Your task to perform on an android device: check battery use Image 0: 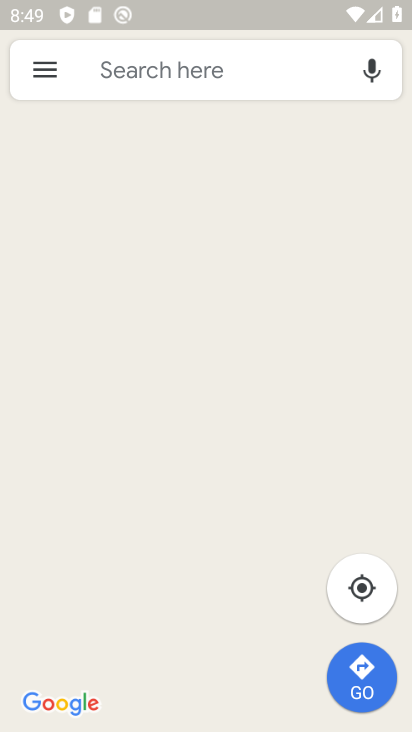
Step 0: drag from (314, 562) to (279, 220)
Your task to perform on an android device: check battery use Image 1: 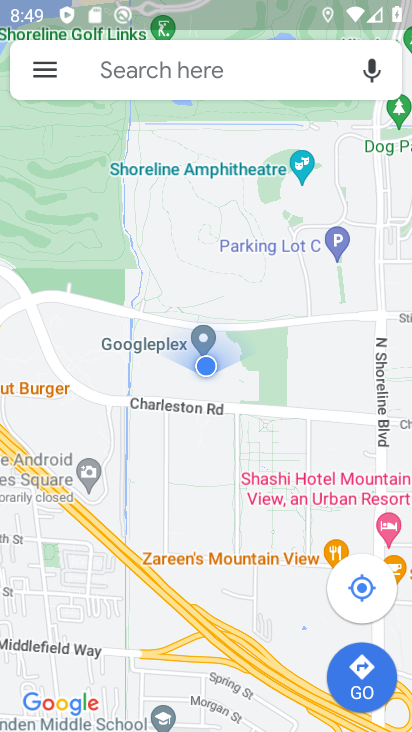
Step 1: click (40, 71)
Your task to perform on an android device: check battery use Image 2: 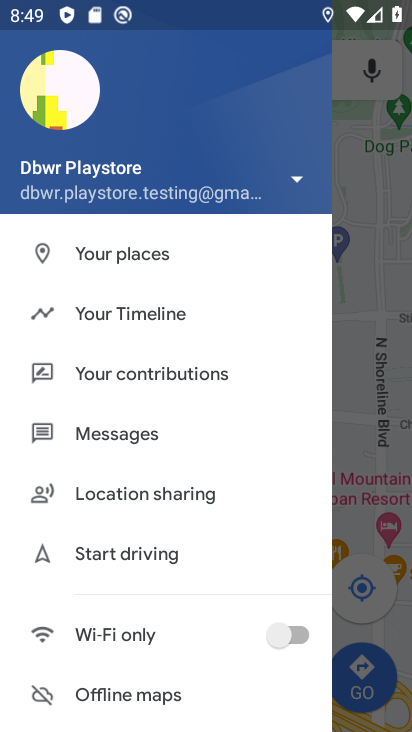
Step 2: press back button
Your task to perform on an android device: check battery use Image 3: 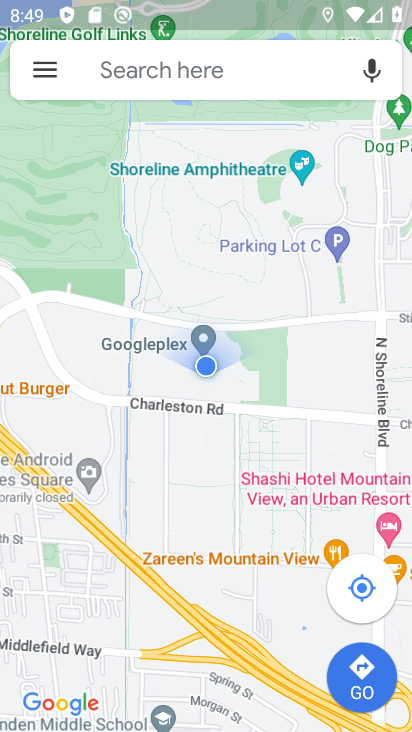
Step 3: press back button
Your task to perform on an android device: check battery use Image 4: 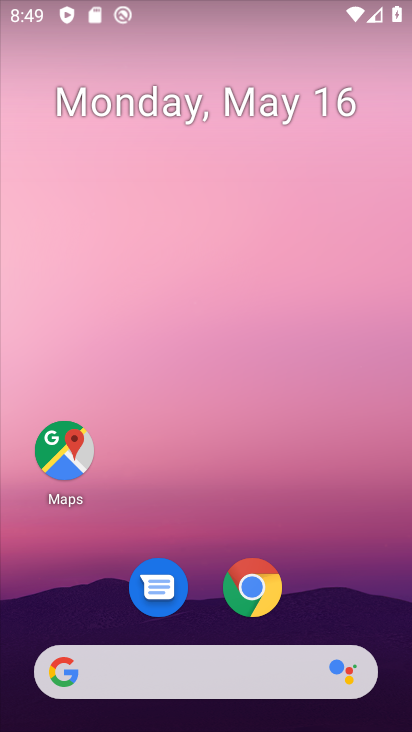
Step 4: drag from (343, 601) to (272, 248)
Your task to perform on an android device: check battery use Image 5: 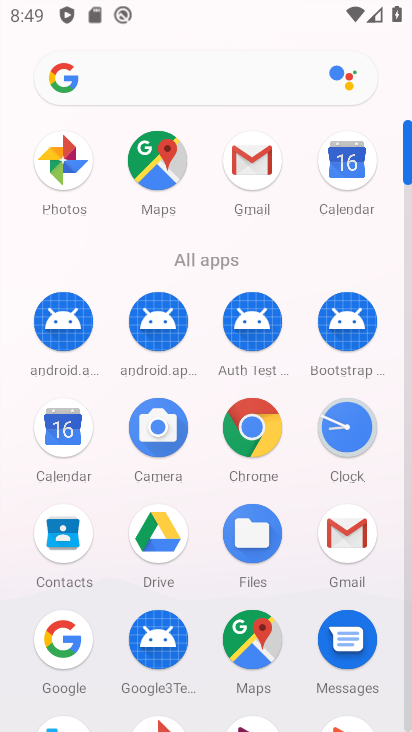
Step 5: click (403, 674)
Your task to perform on an android device: check battery use Image 6: 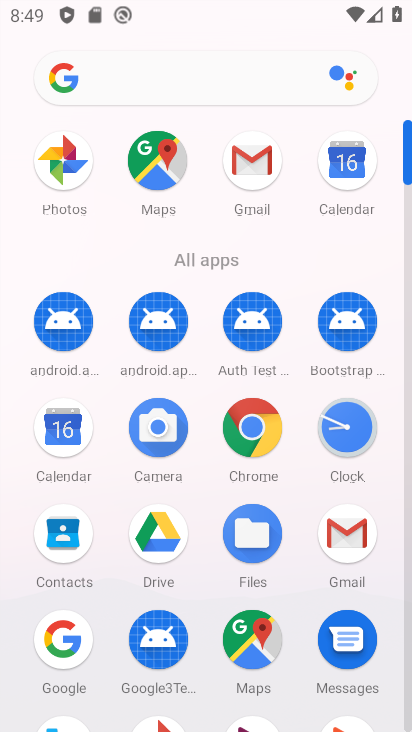
Step 6: click (406, 677)
Your task to perform on an android device: check battery use Image 7: 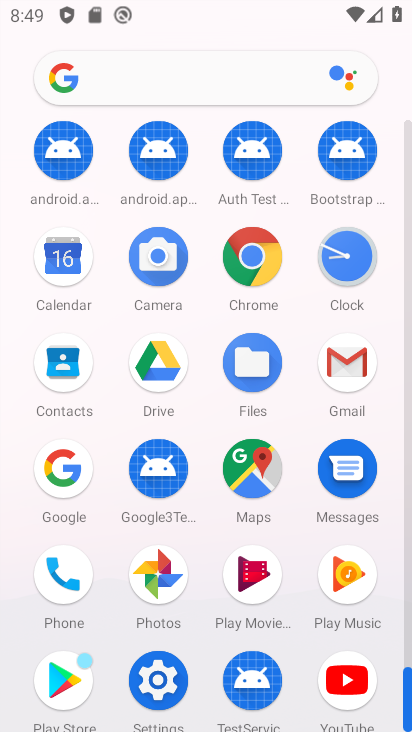
Step 7: click (166, 684)
Your task to perform on an android device: check battery use Image 8: 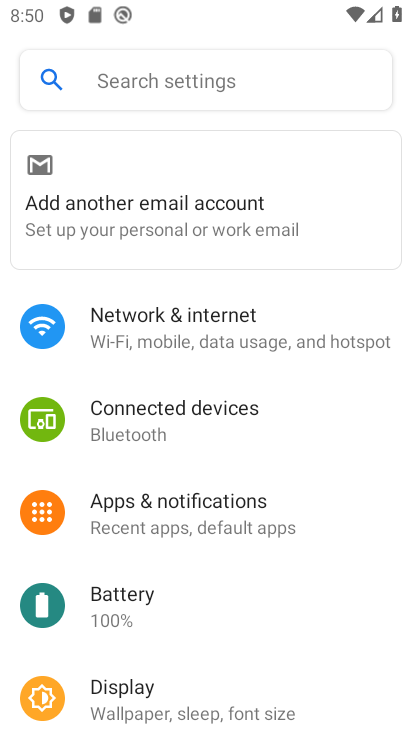
Step 8: click (191, 684)
Your task to perform on an android device: check battery use Image 9: 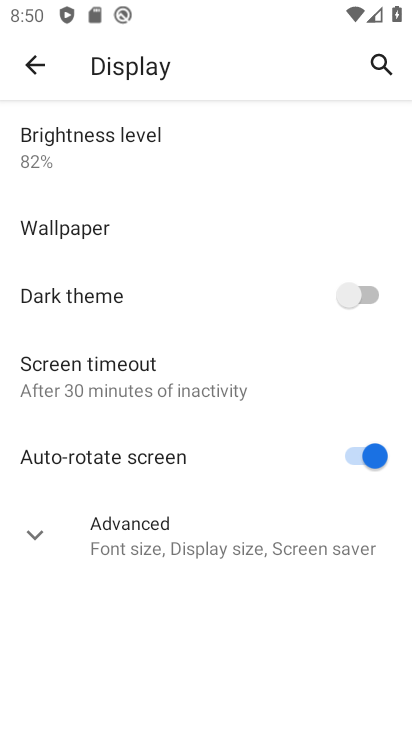
Step 9: click (33, 75)
Your task to perform on an android device: check battery use Image 10: 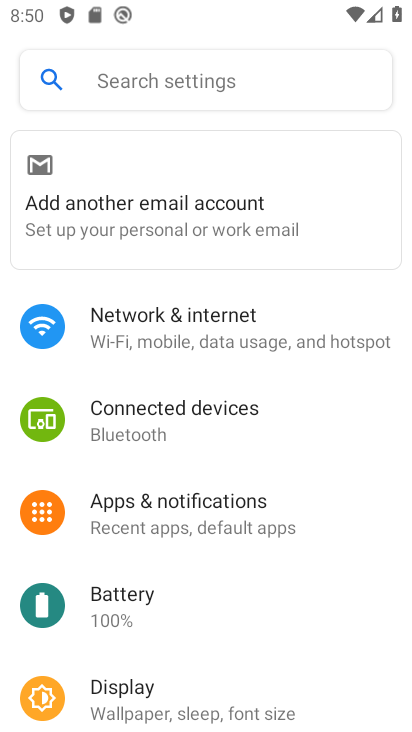
Step 10: click (131, 604)
Your task to perform on an android device: check battery use Image 11: 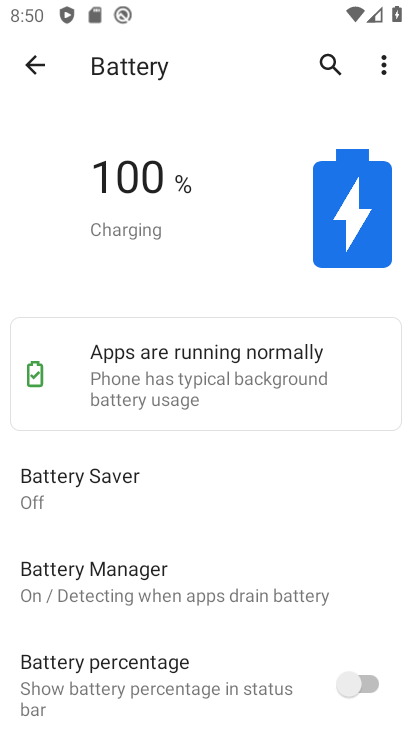
Step 11: task complete